Your task to perform on an android device: open app "Viber Messenger" Image 0: 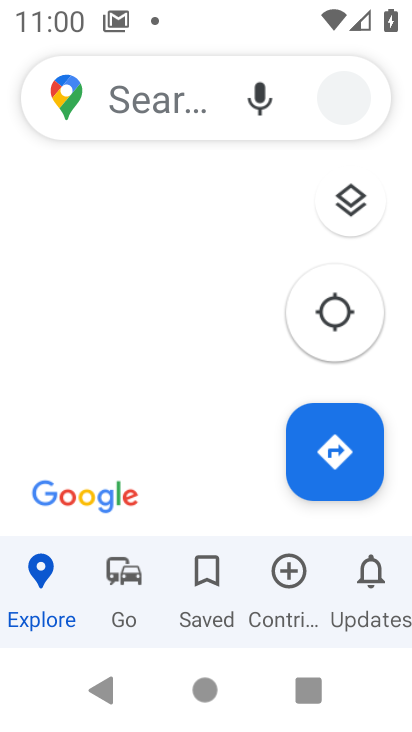
Step 0: press home button
Your task to perform on an android device: open app "Viber Messenger" Image 1: 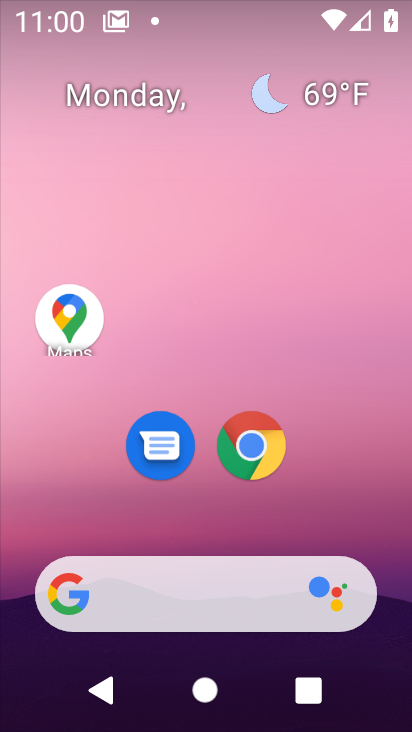
Step 1: drag from (159, 646) to (210, 104)
Your task to perform on an android device: open app "Viber Messenger" Image 2: 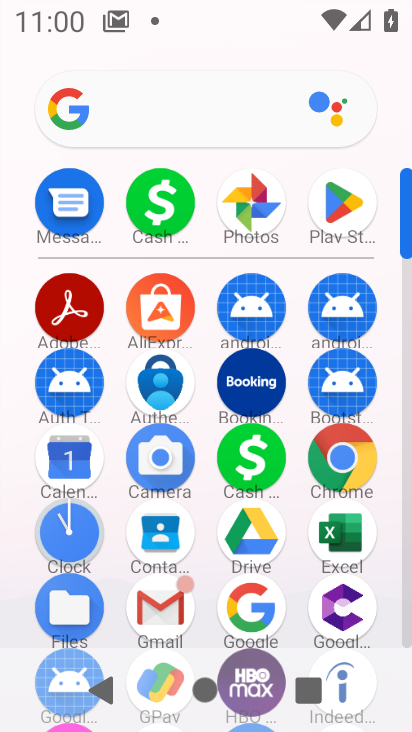
Step 2: drag from (237, 500) to (266, 2)
Your task to perform on an android device: open app "Viber Messenger" Image 3: 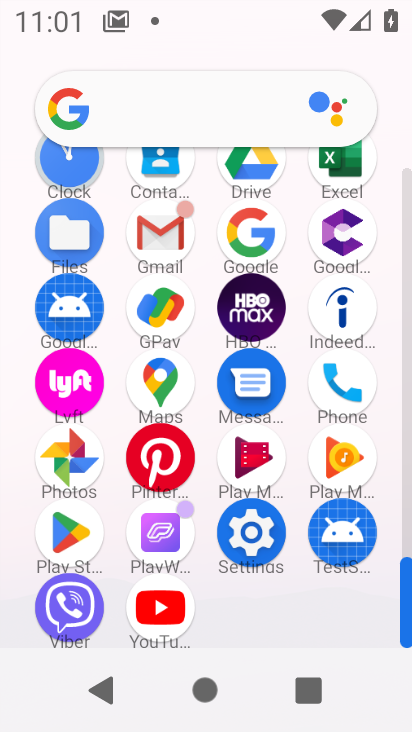
Step 3: click (73, 535)
Your task to perform on an android device: open app "Viber Messenger" Image 4: 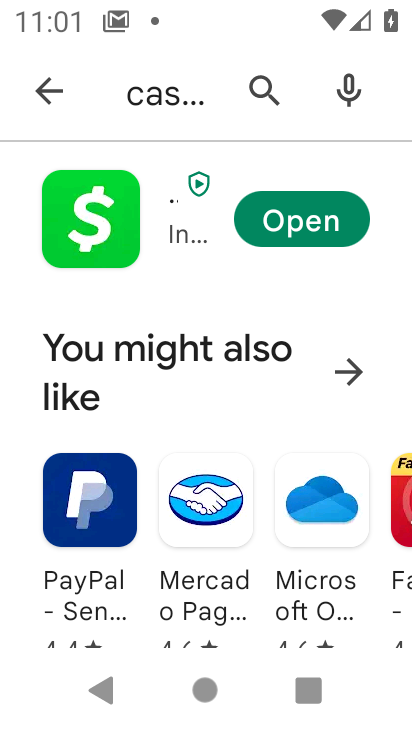
Step 4: click (52, 99)
Your task to perform on an android device: open app "Viber Messenger" Image 5: 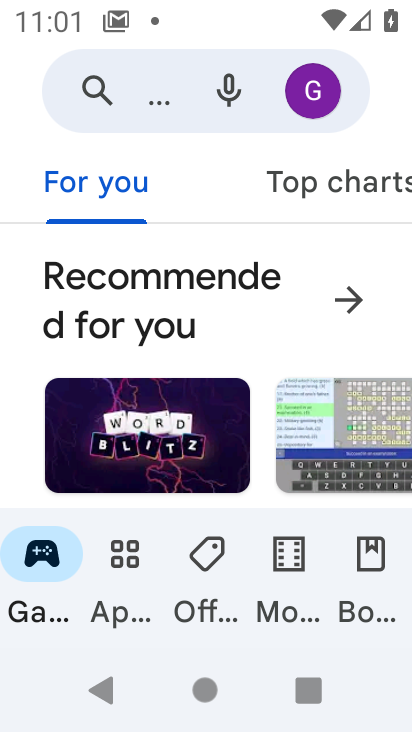
Step 5: click (110, 107)
Your task to perform on an android device: open app "Viber Messenger" Image 6: 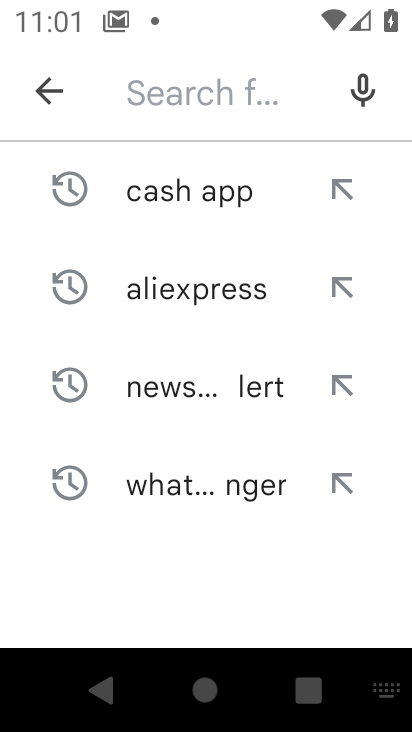
Step 6: type "Viber Messenger"
Your task to perform on an android device: open app "Viber Messenger" Image 7: 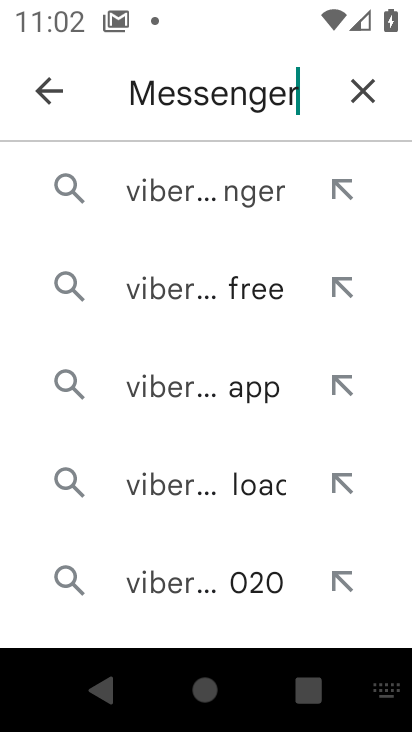
Step 7: click (213, 192)
Your task to perform on an android device: open app "Viber Messenger" Image 8: 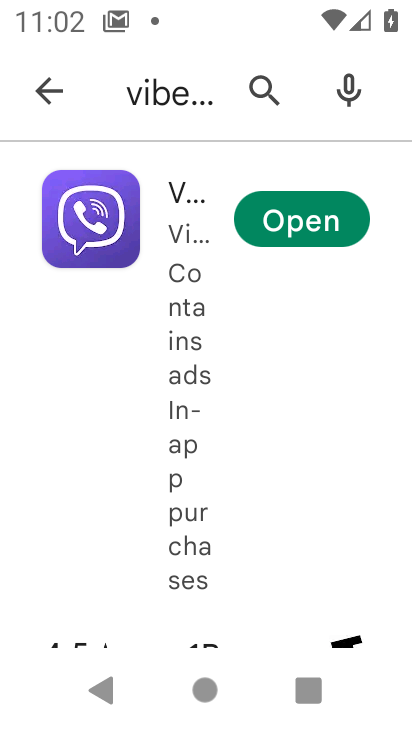
Step 8: click (297, 235)
Your task to perform on an android device: open app "Viber Messenger" Image 9: 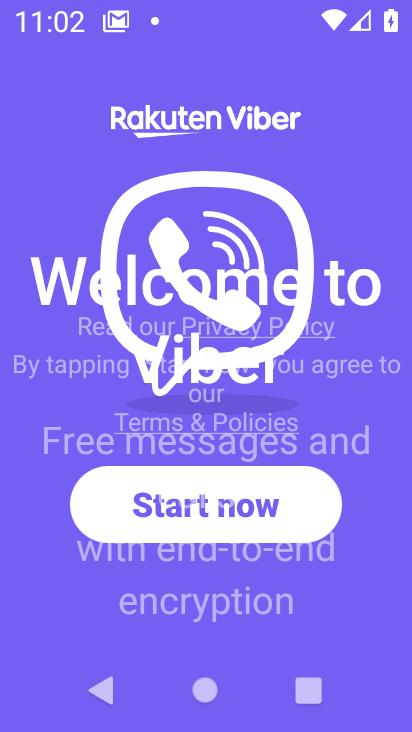
Step 9: task complete